Your task to perform on an android device: open the mobile data screen to see how much data has been used Image 0: 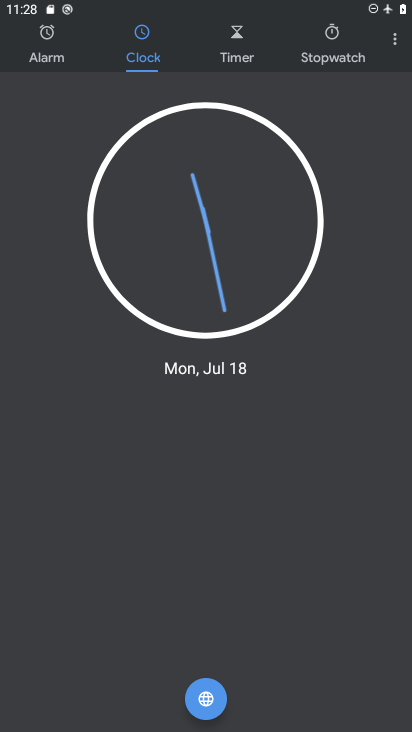
Step 0: press home button
Your task to perform on an android device: open the mobile data screen to see how much data has been used Image 1: 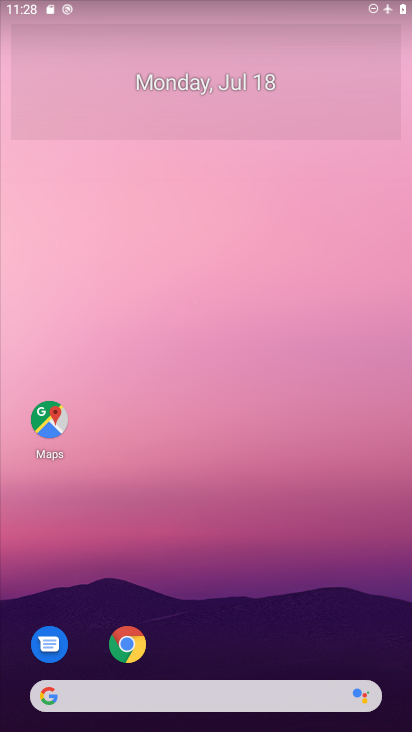
Step 1: drag from (232, 672) to (216, 67)
Your task to perform on an android device: open the mobile data screen to see how much data has been used Image 2: 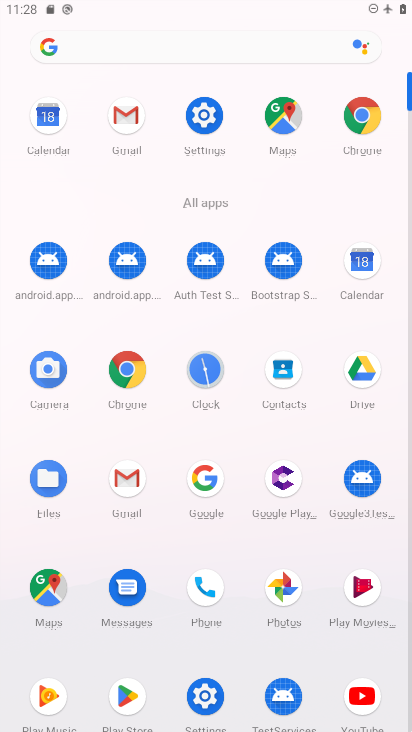
Step 2: click (203, 117)
Your task to perform on an android device: open the mobile data screen to see how much data has been used Image 3: 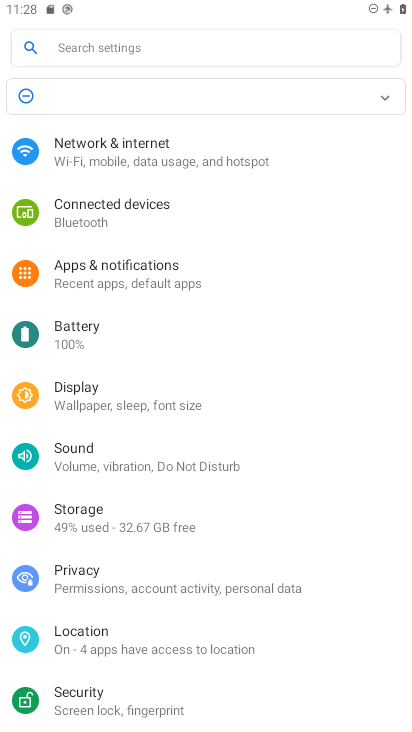
Step 3: click (158, 171)
Your task to perform on an android device: open the mobile data screen to see how much data has been used Image 4: 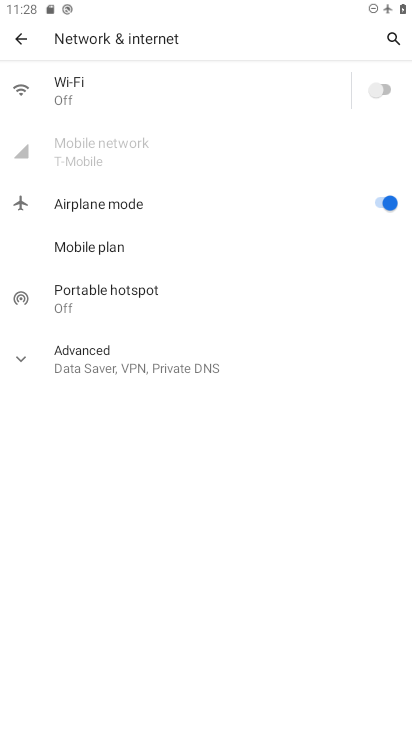
Step 4: task complete